Your task to perform on an android device: View the shopping cart on costco. Search for "dell xps" on costco, select the first entry, and add it to the cart. Image 0: 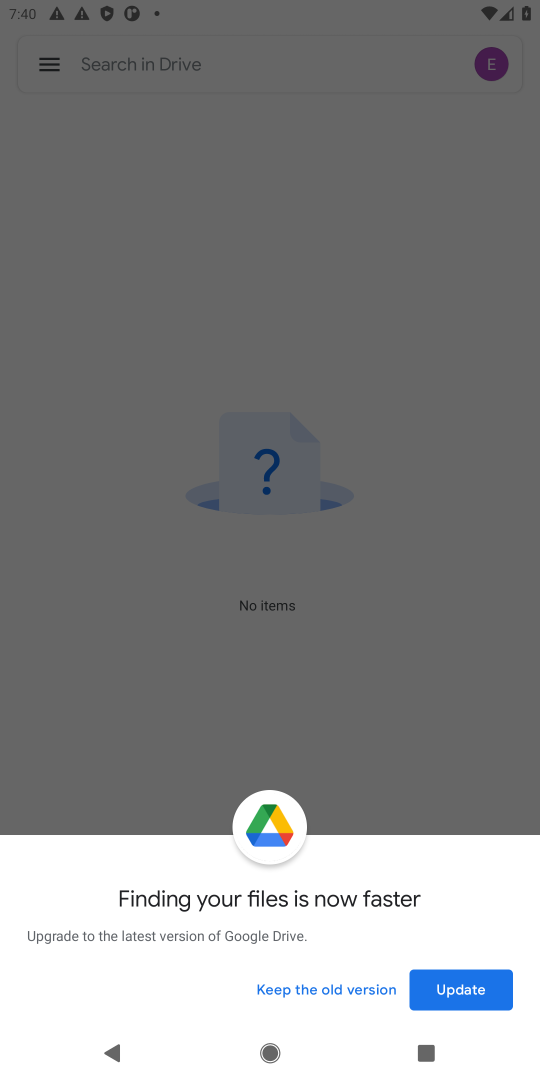
Step 0: press home button
Your task to perform on an android device: View the shopping cart on costco. Search for "dell xps" on costco, select the first entry, and add it to the cart. Image 1: 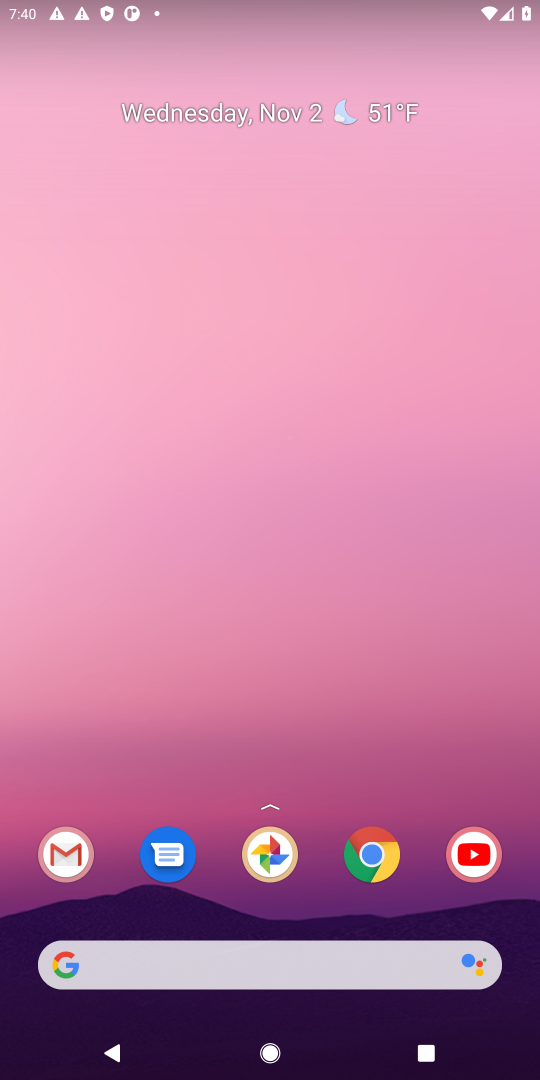
Step 1: click (368, 859)
Your task to perform on an android device: View the shopping cart on costco. Search for "dell xps" on costco, select the first entry, and add it to the cart. Image 2: 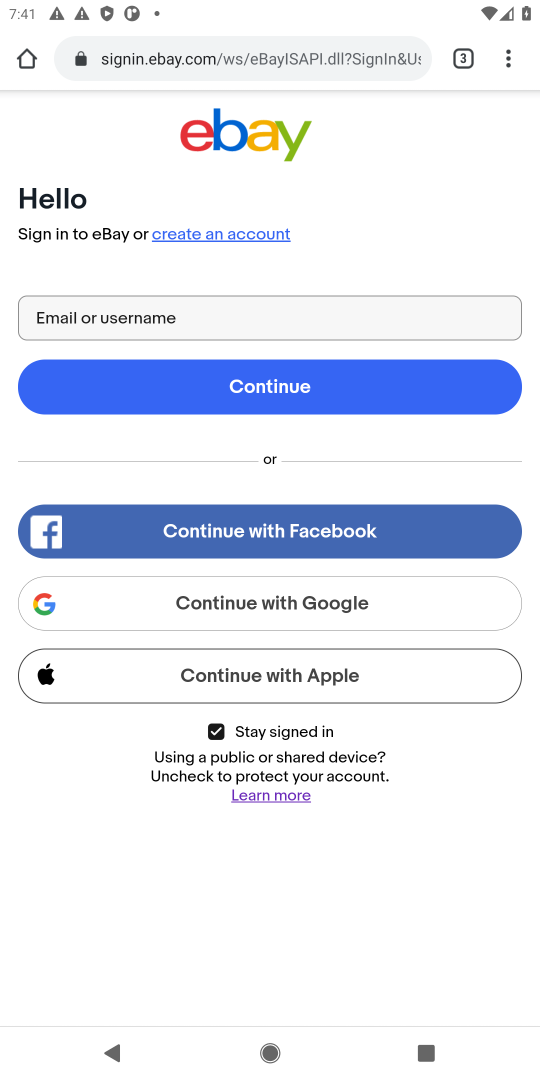
Step 2: click (466, 50)
Your task to perform on an android device: View the shopping cart on costco. Search for "dell xps" on costco, select the first entry, and add it to the cart. Image 3: 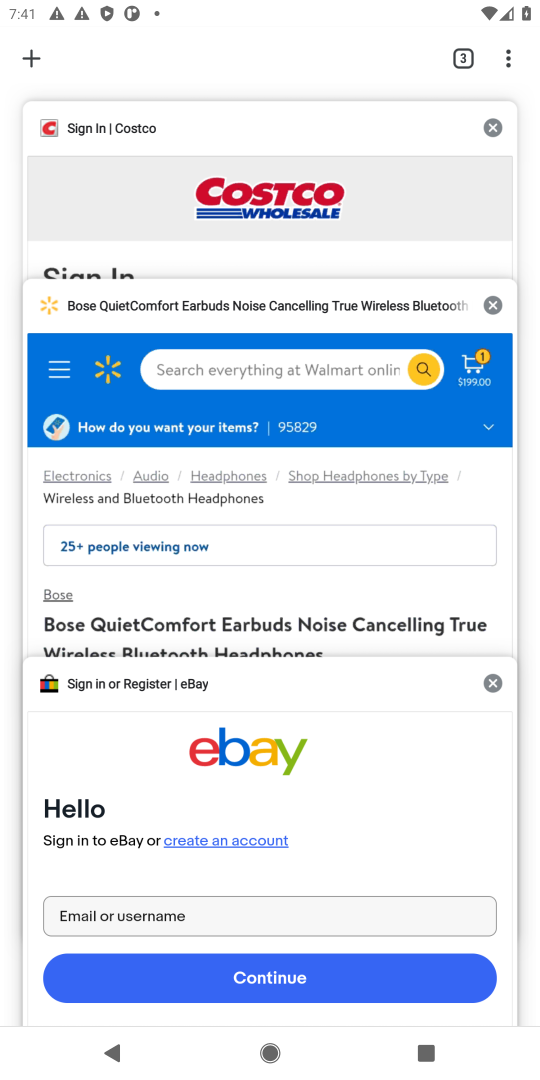
Step 3: click (358, 174)
Your task to perform on an android device: View the shopping cart on costco. Search for "dell xps" on costco, select the first entry, and add it to the cart. Image 4: 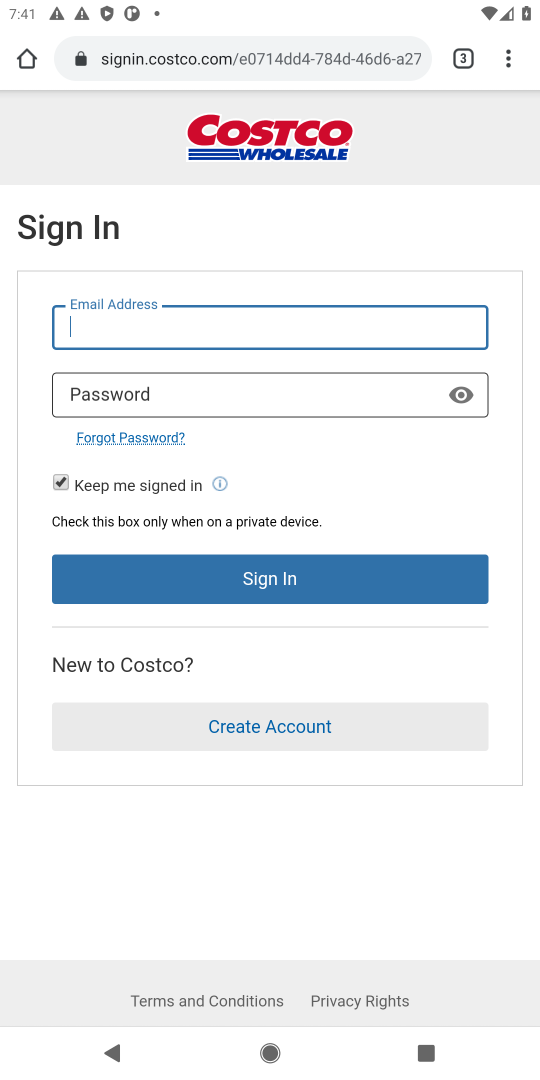
Step 4: press back button
Your task to perform on an android device: View the shopping cart on costco. Search for "dell xps" on costco, select the first entry, and add it to the cart. Image 5: 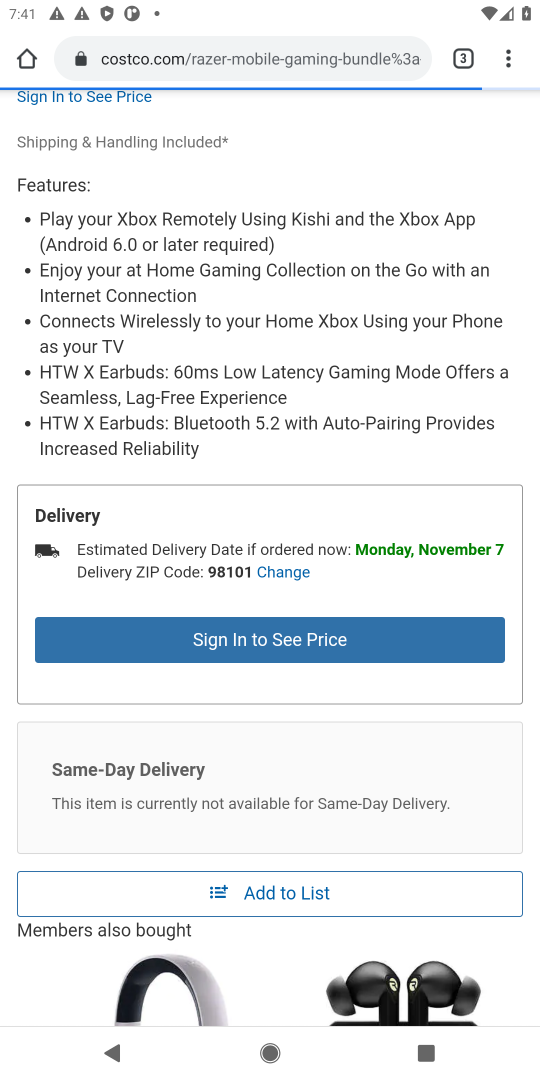
Step 5: drag from (326, 218) to (265, 884)
Your task to perform on an android device: View the shopping cart on costco. Search for "dell xps" on costco, select the first entry, and add it to the cart. Image 6: 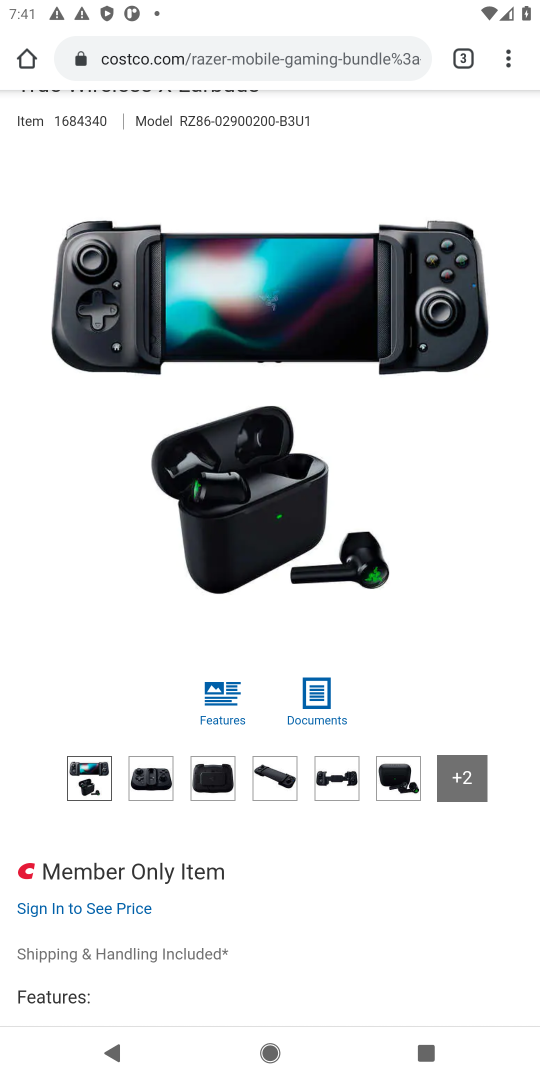
Step 6: drag from (393, 135) to (352, 861)
Your task to perform on an android device: View the shopping cart on costco. Search for "dell xps" on costco, select the first entry, and add it to the cart. Image 7: 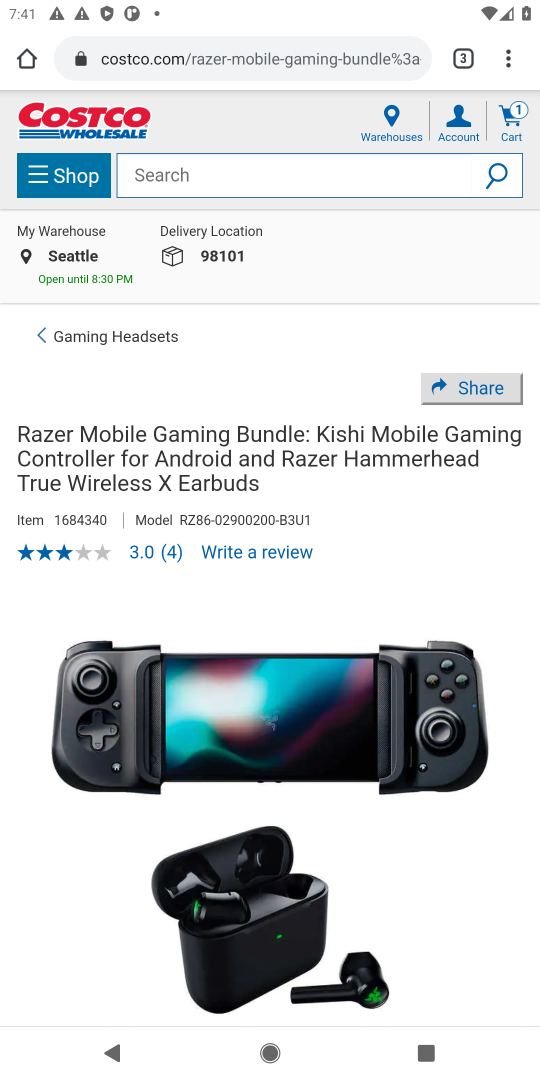
Step 7: click (225, 184)
Your task to perform on an android device: View the shopping cart on costco. Search for "dell xps" on costco, select the first entry, and add it to the cart. Image 8: 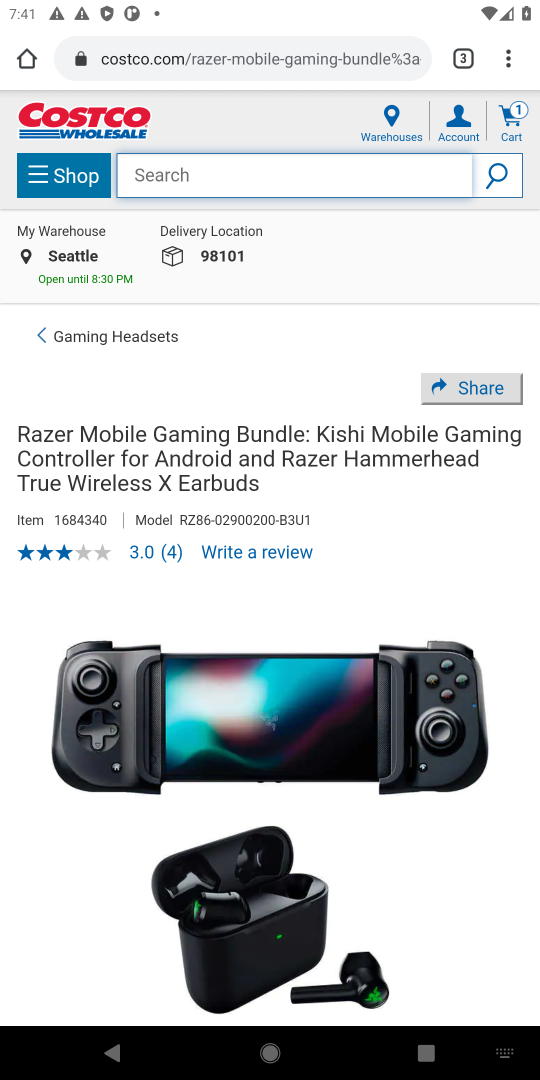
Step 8: type "dell xps"
Your task to perform on an android device: View the shopping cart on costco. Search for "dell xps" on costco, select the first entry, and add it to the cart. Image 9: 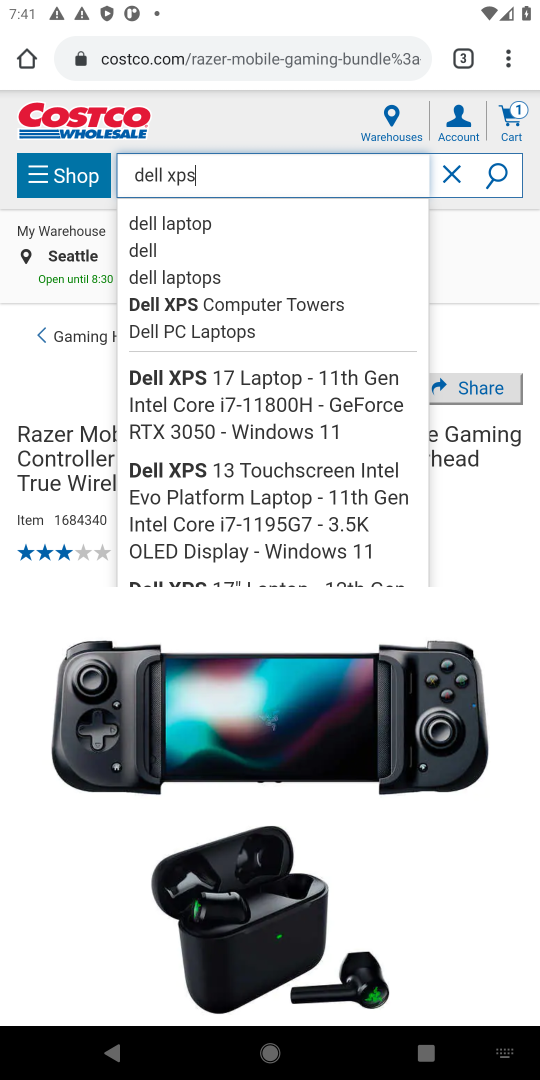
Step 9: click (178, 301)
Your task to perform on an android device: View the shopping cart on costco. Search for "dell xps" on costco, select the first entry, and add it to the cart. Image 10: 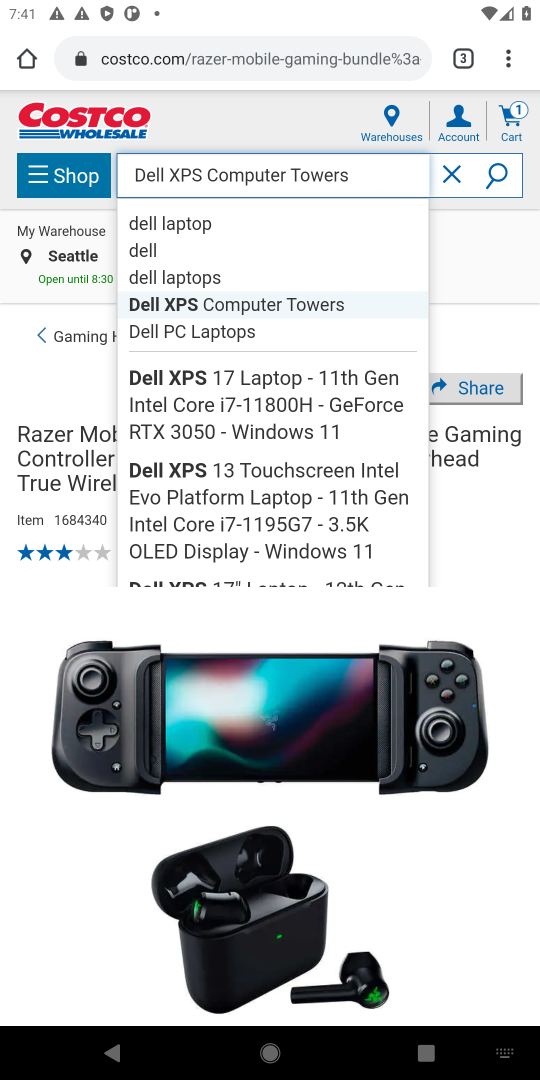
Step 10: click (502, 170)
Your task to perform on an android device: View the shopping cart on costco. Search for "dell xps" on costco, select the first entry, and add it to the cart. Image 11: 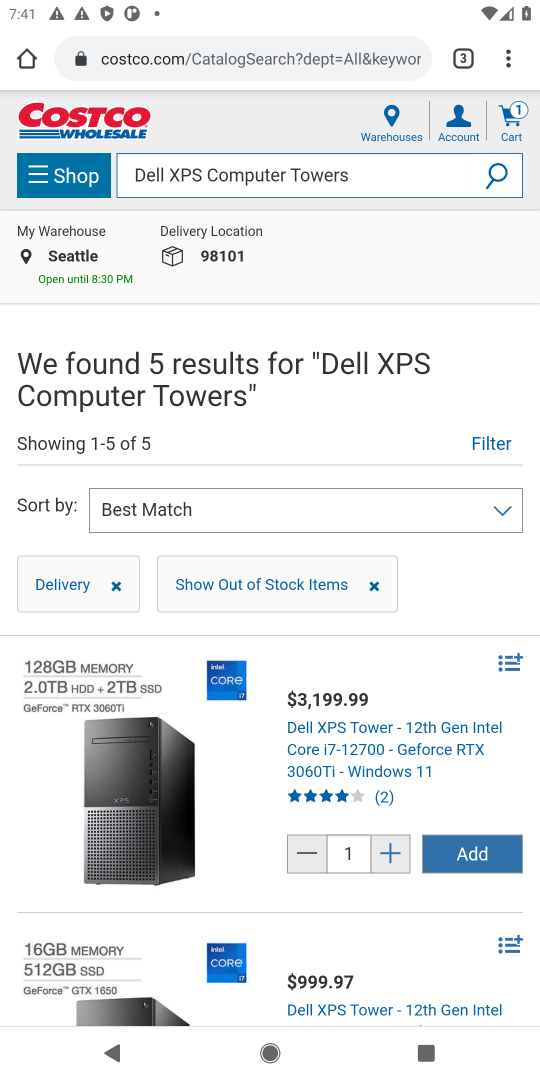
Step 11: click (465, 850)
Your task to perform on an android device: View the shopping cart on costco. Search for "dell xps" on costco, select the first entry, and add it to the cart. Image 12: 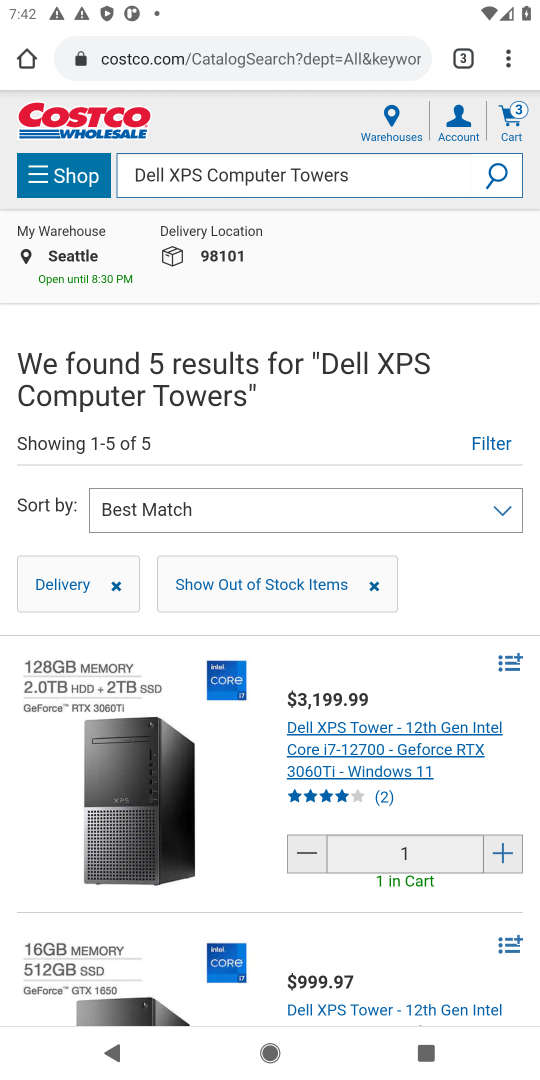
Step 12: task complete